Your task to perform on an android device: Open location settings Image 0: 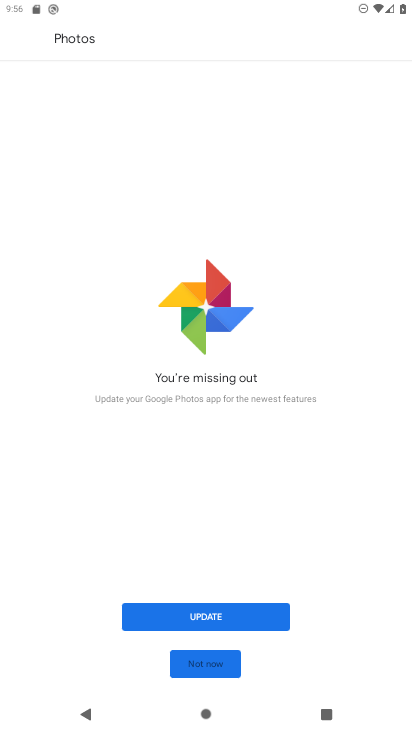
Step 0: press home button
Your task to perform on an android device: Open location settings Image 1: 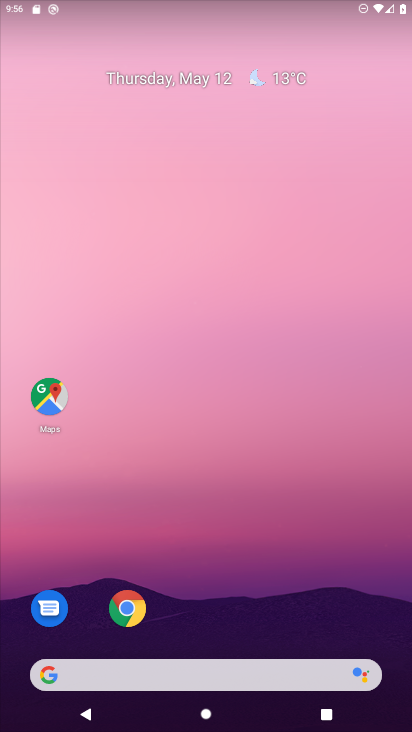
Step 1: drag from (224, 627) to (255, 183)
Your task to perform on an android device: Open location settings Image 2: 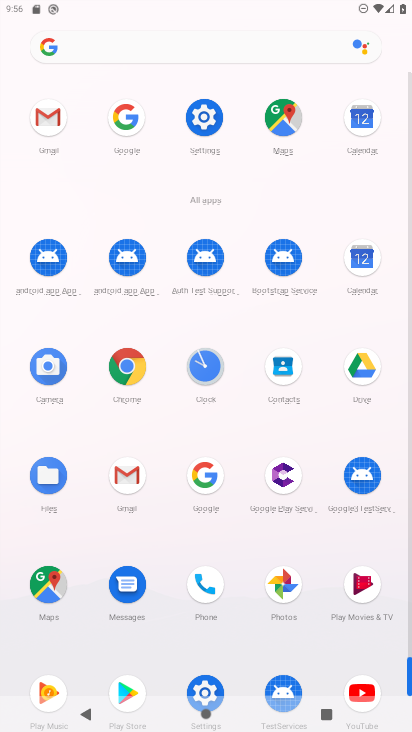
Step 2: click (200, 114)
Your task to perform on an android device: Open location settings Image 3: 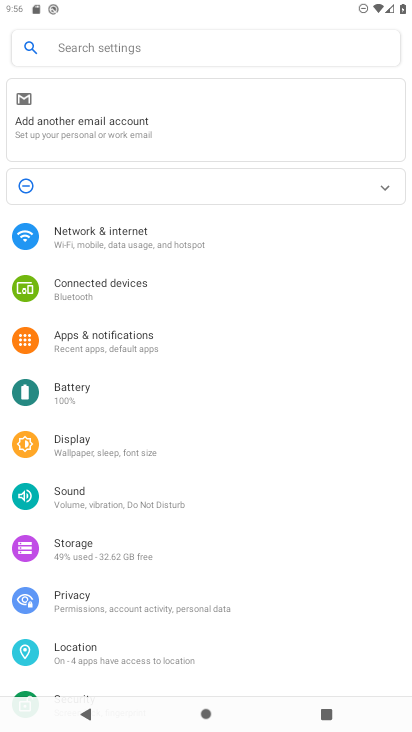
Step 3: click (65, 646)
Your task to perform on an android device: Open location settings Image 4: 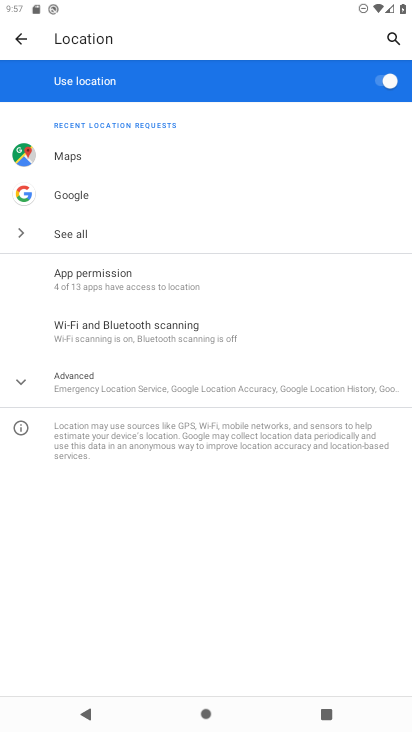
Step 4: task complete